Your task to perform on an android device: Is it going to rain this weekend? Image 0: 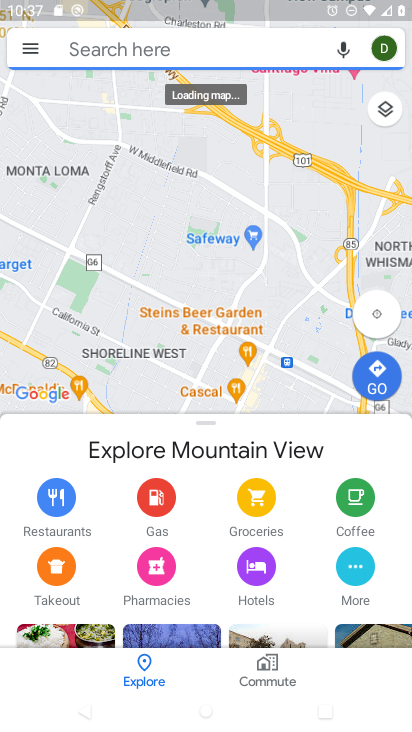
Step 0: press home button
Your task to perform on an android device: Is it going to rain this weekend? Image 1: 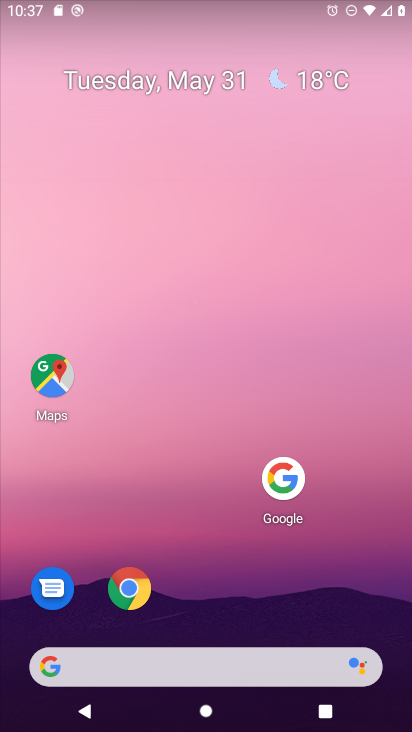
Step 1: click (296, 82)
Your task to perform on an android device: Is it going to rain this weekend? Image 2: 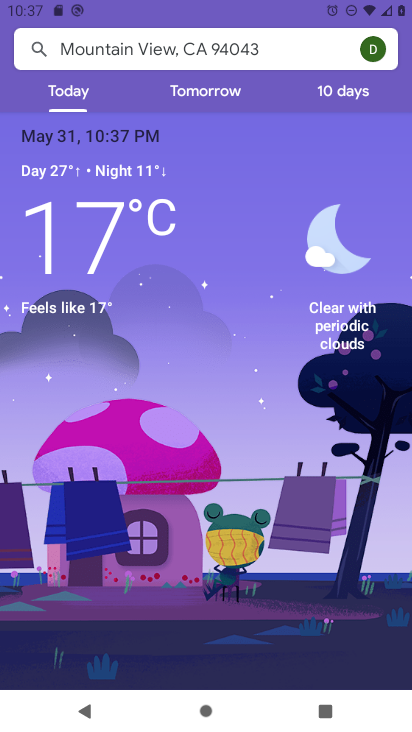
Step 2: click (340, 82)
Your task to perform on an android device: Is it going to rain this weekend? Image 3: 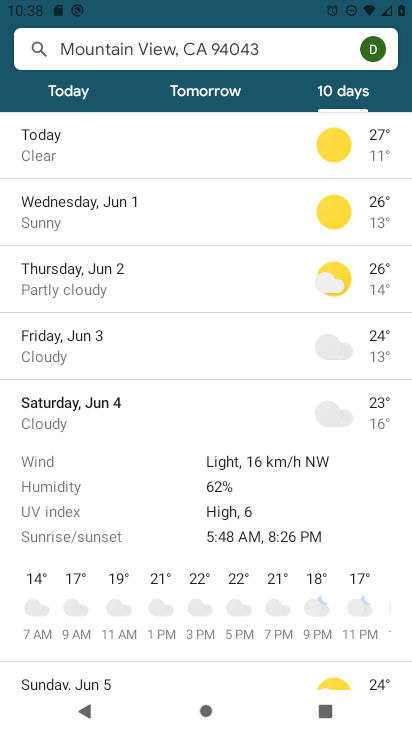
Step 3: task complete